Your task to perform on an android device: Open eBay Image 0: 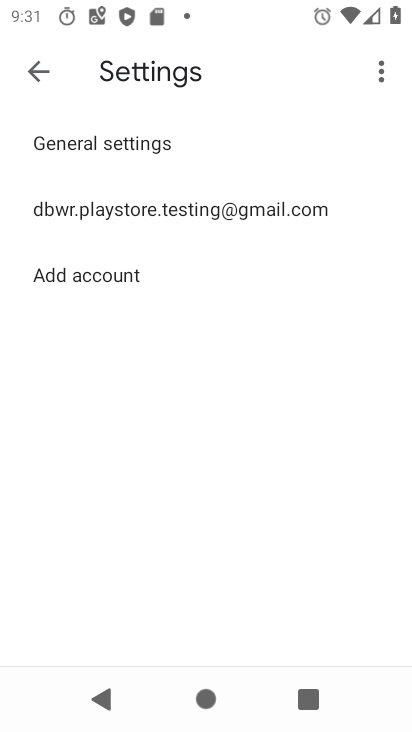
Step 0: press home button
Your task to perform on an android device: Open eBay Image 1: 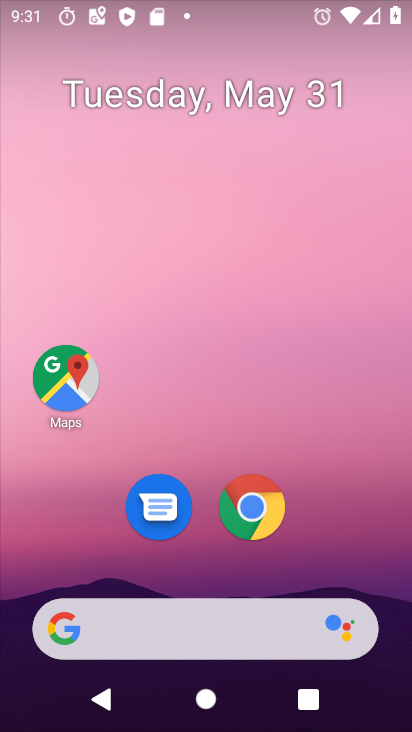
Step 1: click (258, 509)
Your task to perform on an android device: Open eBay Image 2: 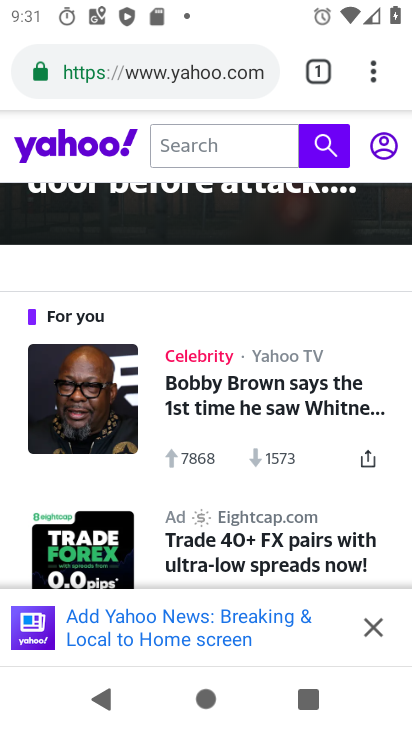
Step 2: click (142, 78)
Your task to perform on an android device: Open eBay Image 3: 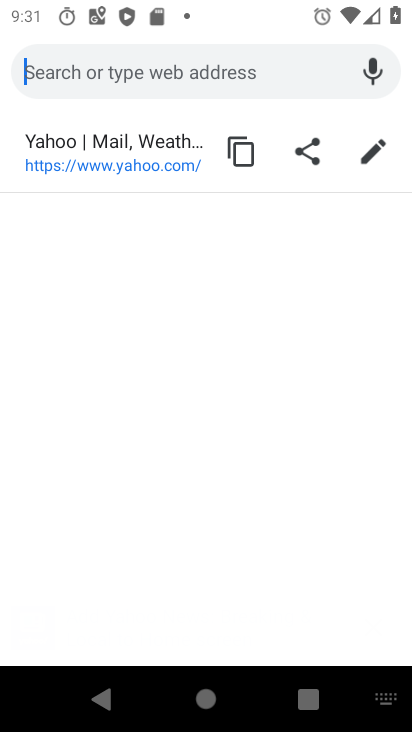
Step 3: type "ebay"
Your task to perform on an android device: Open eBay Image 4: 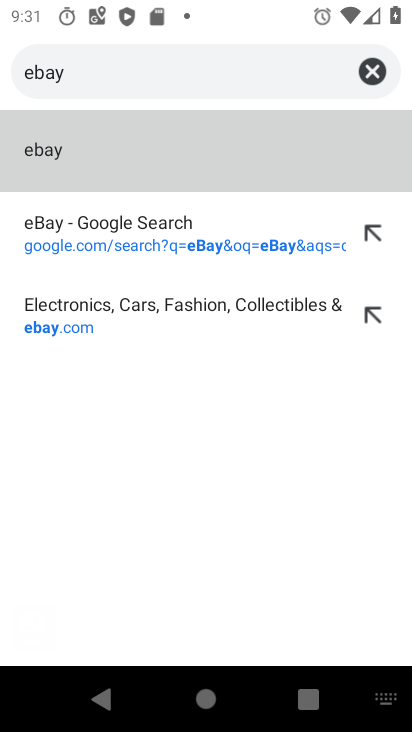
Step 4: click (46, 152)
Your task to perform on an android device: Open eBay Image 5: 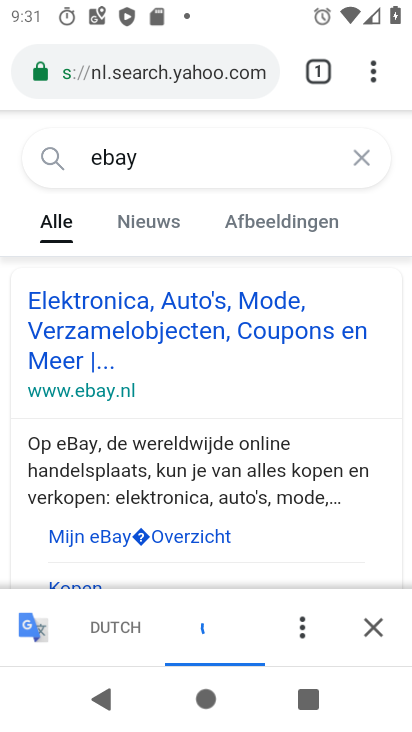
Step 5: click (49, 386)
Your task to perform on an android device: Open eBay Image 6: 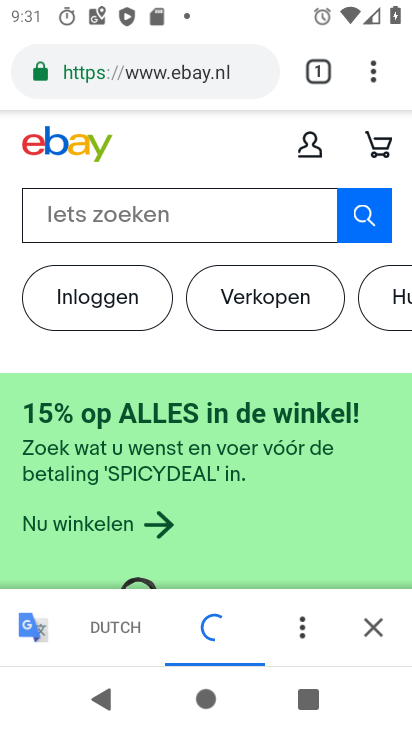
Step 6: task complete